Your task to perform on an android device: Search for flights from Mexico city to Zurich Image 0: 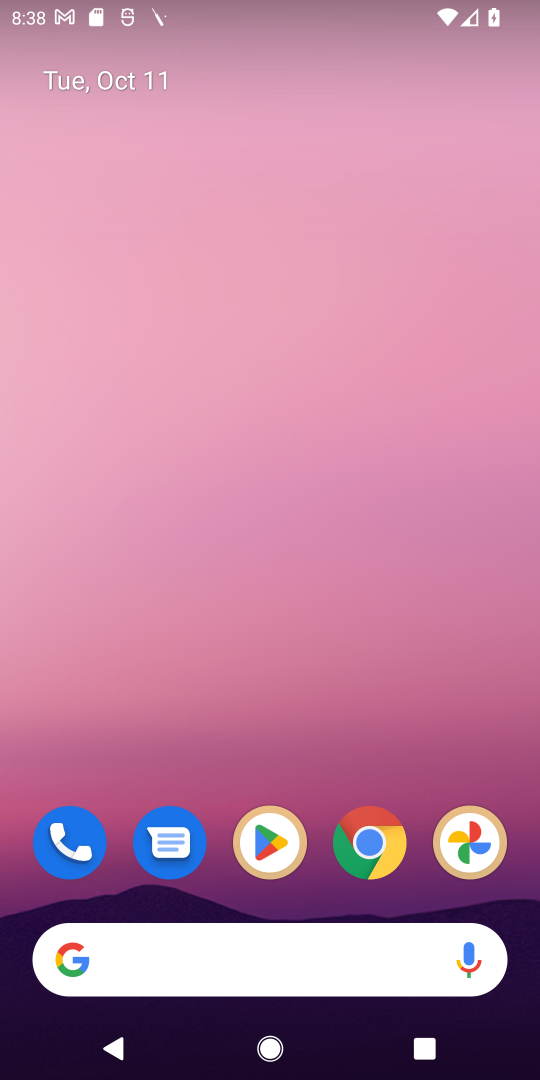
Step 0: click (368, 847)
Your task to perform on an android device: Search for flights from Mexico city to Zurich Image 1: 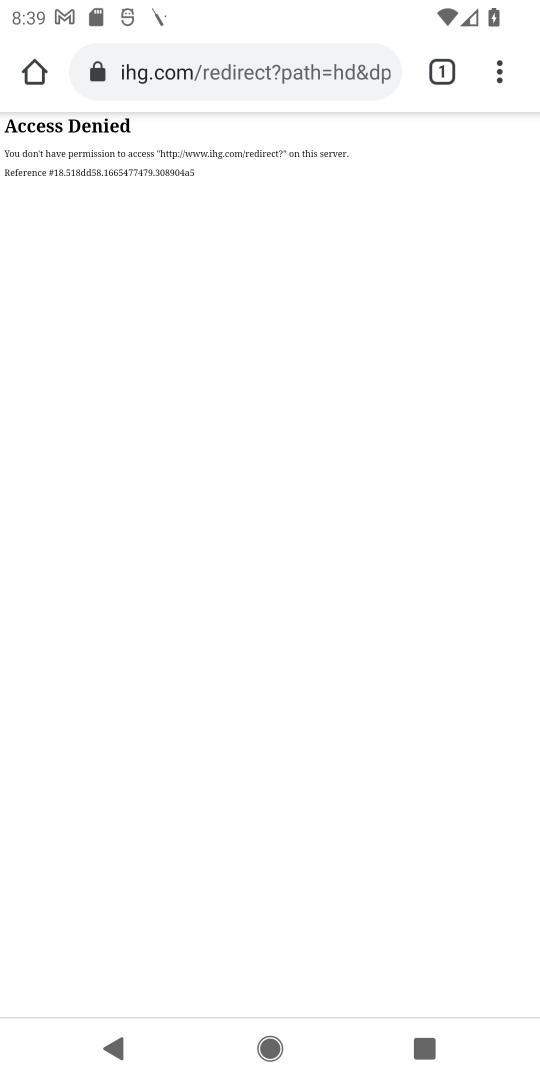
Step 1: press home button
Your task to perform on an android device: Search for flights from Mexico city to Zurich Image 2: 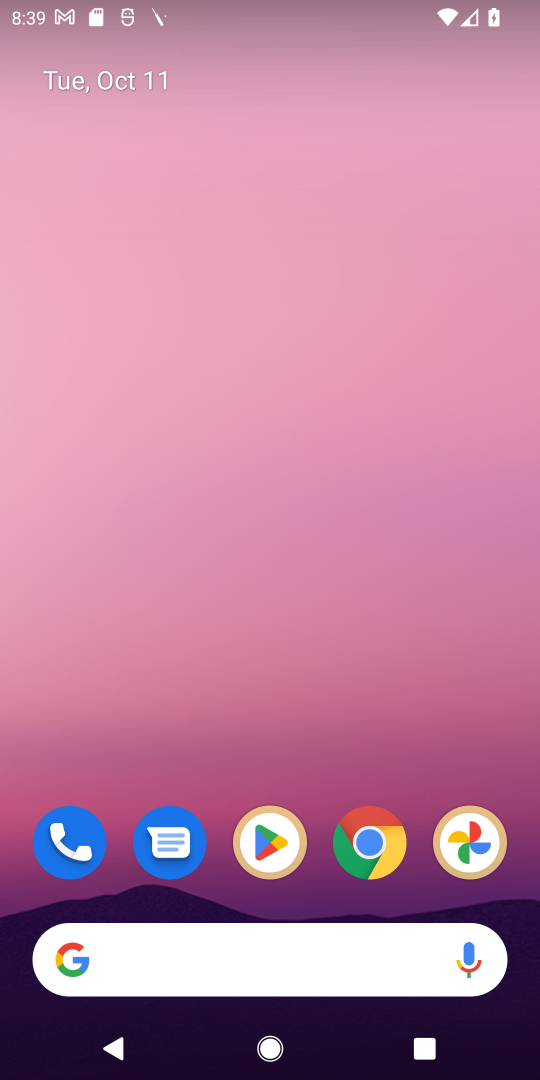
Step 2: click (396, 845)
Your task to perform on an android device: Search for flights from Mexico city to Zurich Image 3: 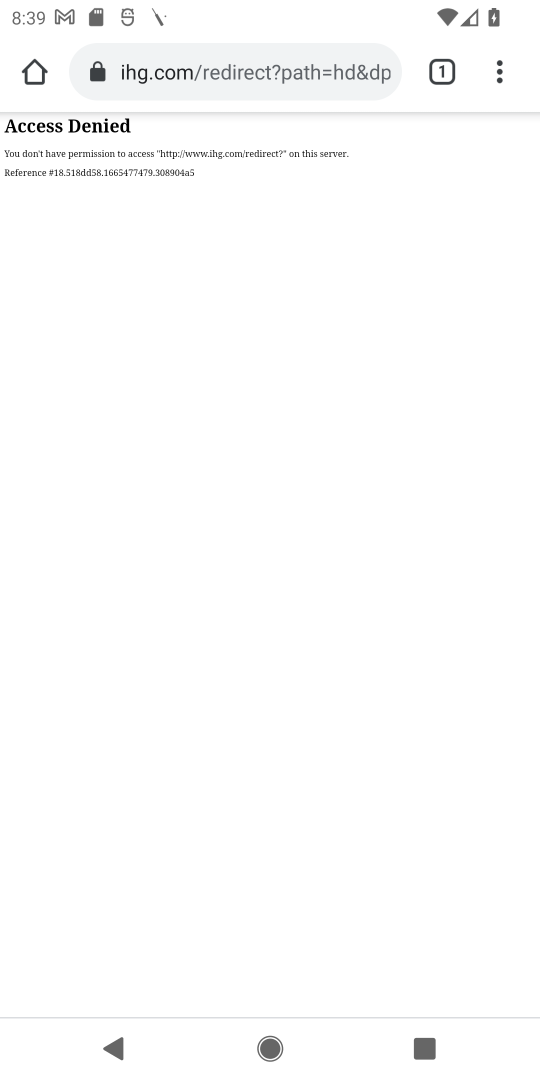
Step 3: click (143, 57)
Your task to perform on an android device: Search for flights from Mexico city to Zurich Image 4: 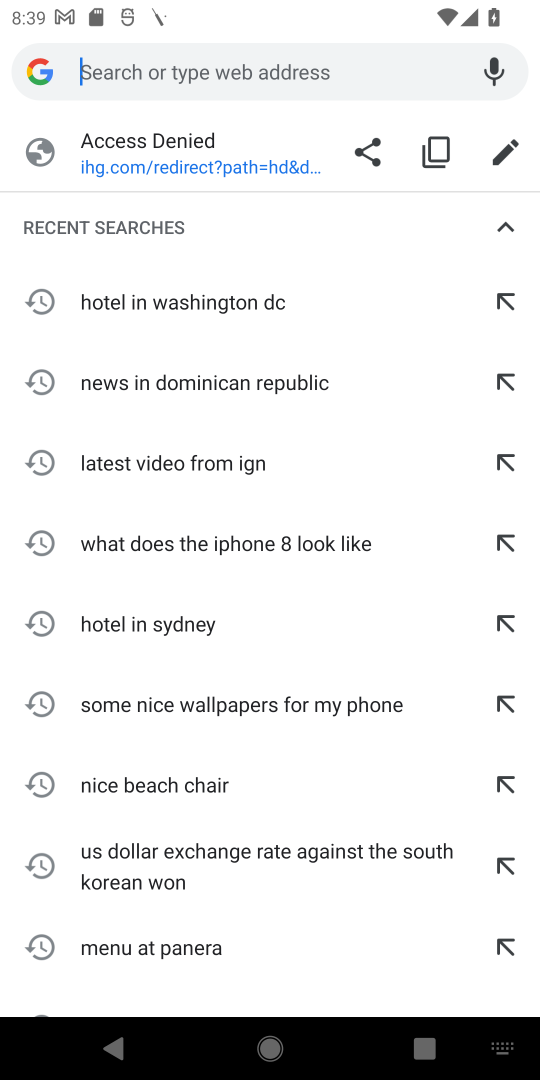
Step 4: type "flight from mexico city to zurich"
Your task to perform on an android device: Search for flights from Mexico city to Zurich Image 5: 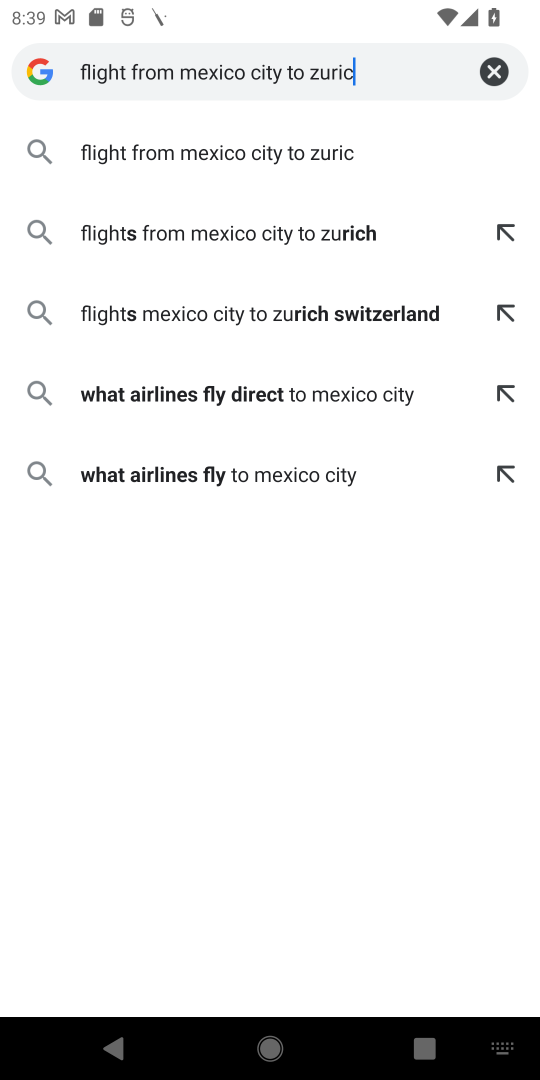
Step 5: type ""
Your task to perform on an android device: Search for flights from Mexico city to Zurich Image 6: 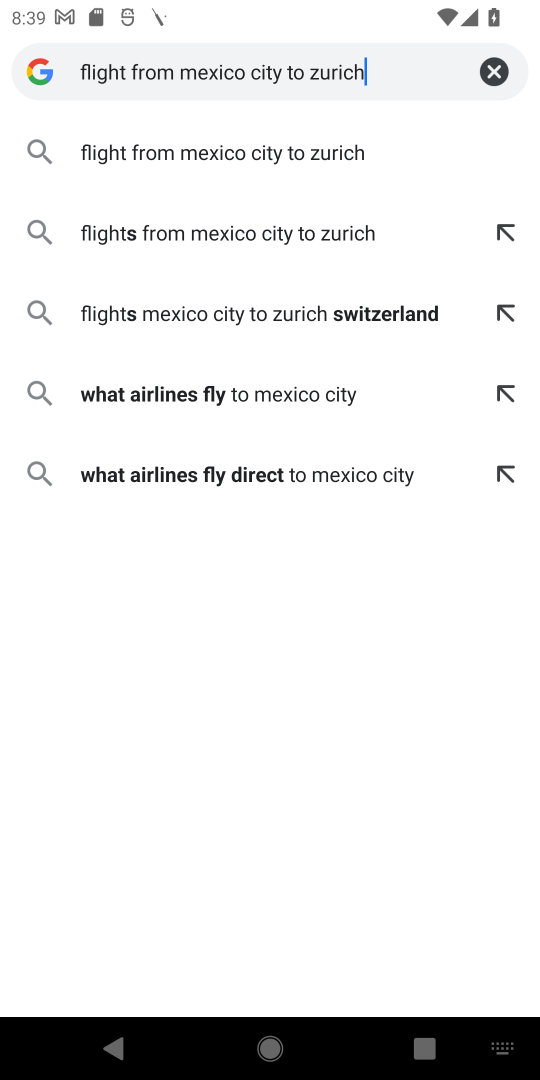
Step 6: click (253, 145)
Your task to perform on an android device: Search for flights from Mexico city to Zurich Image 7: 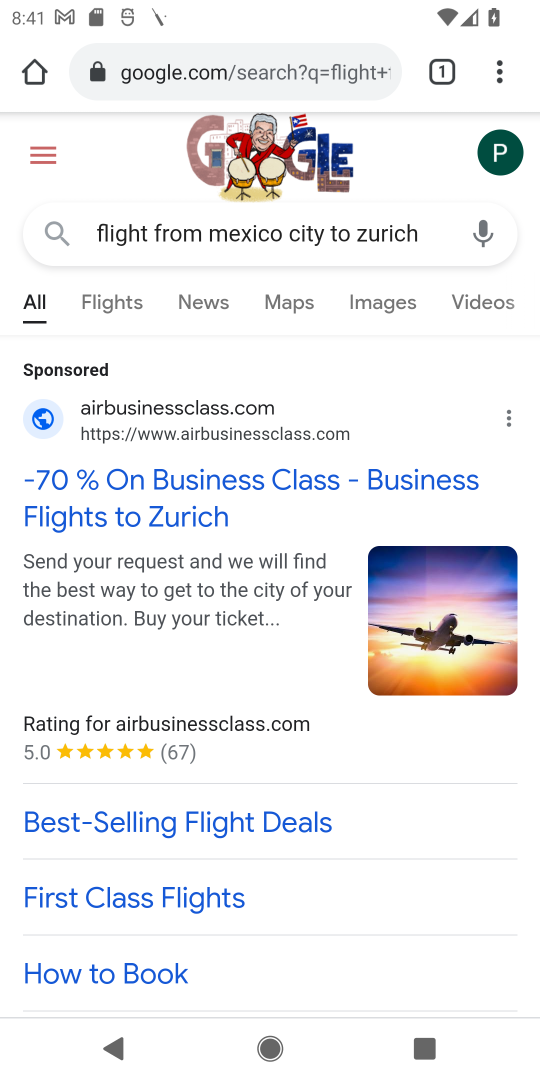
Step 7: click (138, 827)
Your task to perform on an android device: Search for flights from Mexico city to Zurich Image 8: 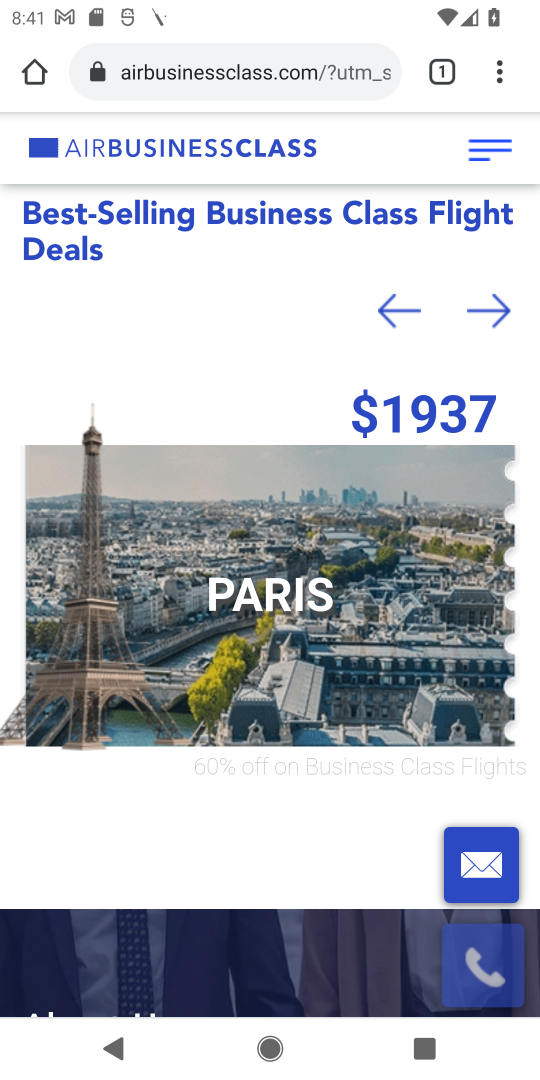
Step 8: drag from (215, 765) to (250, 346)
Your task to perform on an android device: Search for flights from Mexico city to Zurich Image 9: 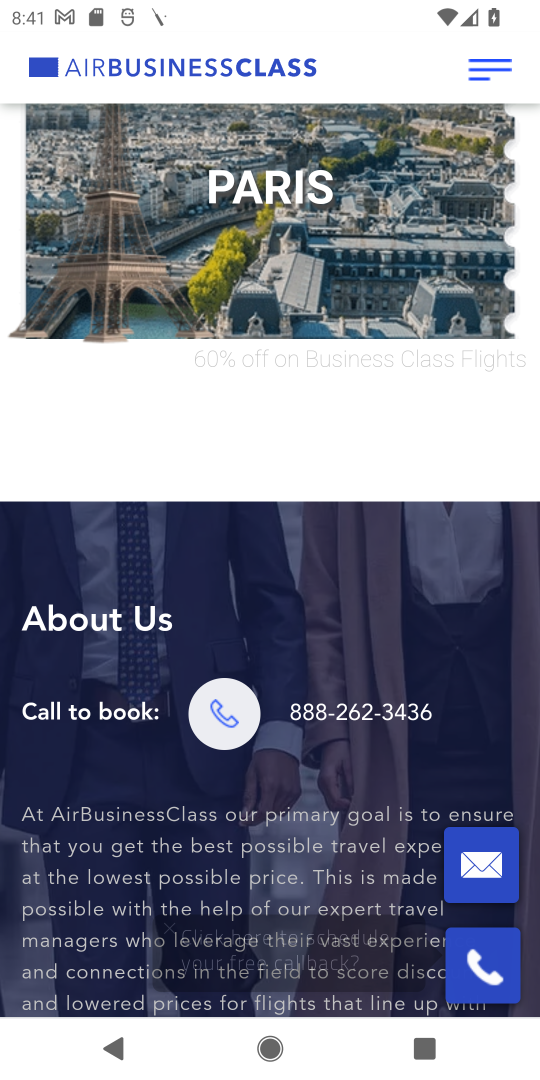
Step 9: drag from (227, 277) to (258, 929)
Your task to perform on an android device: Search for flights from Mexico city to Zurich Image 10: 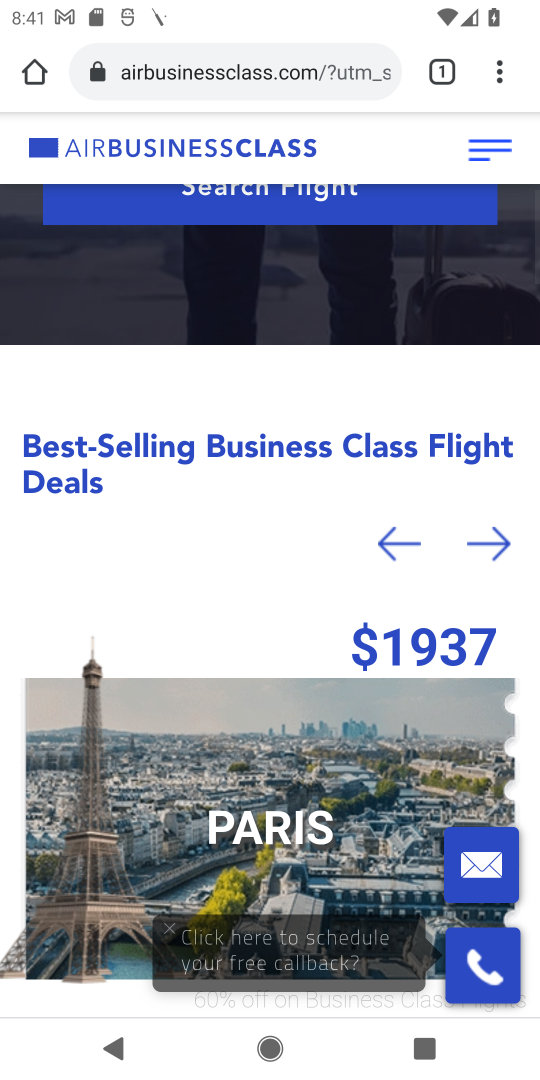
Step 10: drag from (275, 546) to (265, 664)
Your task to perform on an android device: Search for flights from Mexico city to Zurich Image 11: 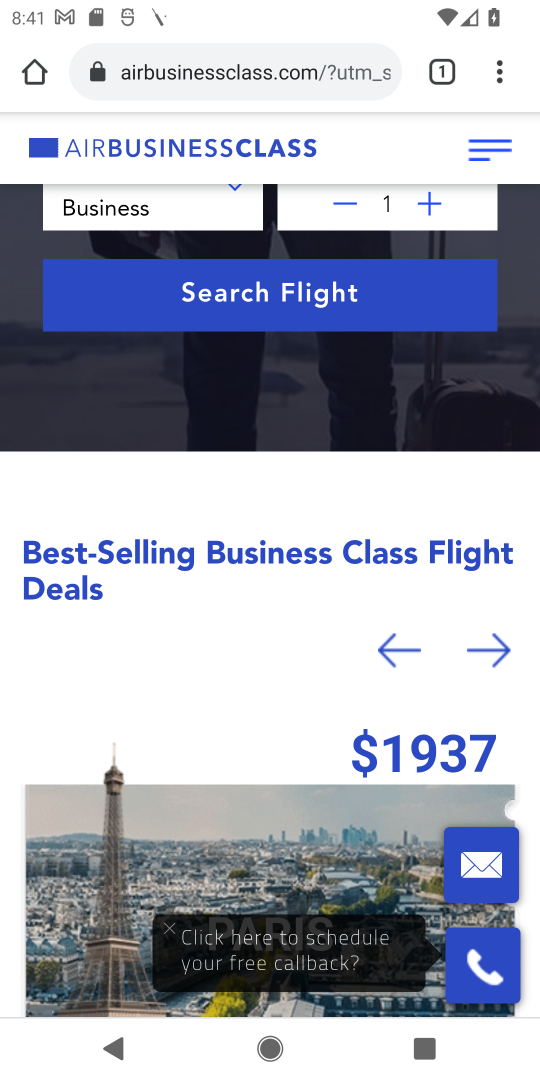
Step 11: drag from (290, 531) to (250, 952)
Your task to perform on an android device: Search for flights from Mexico city to Zurich Image 12: 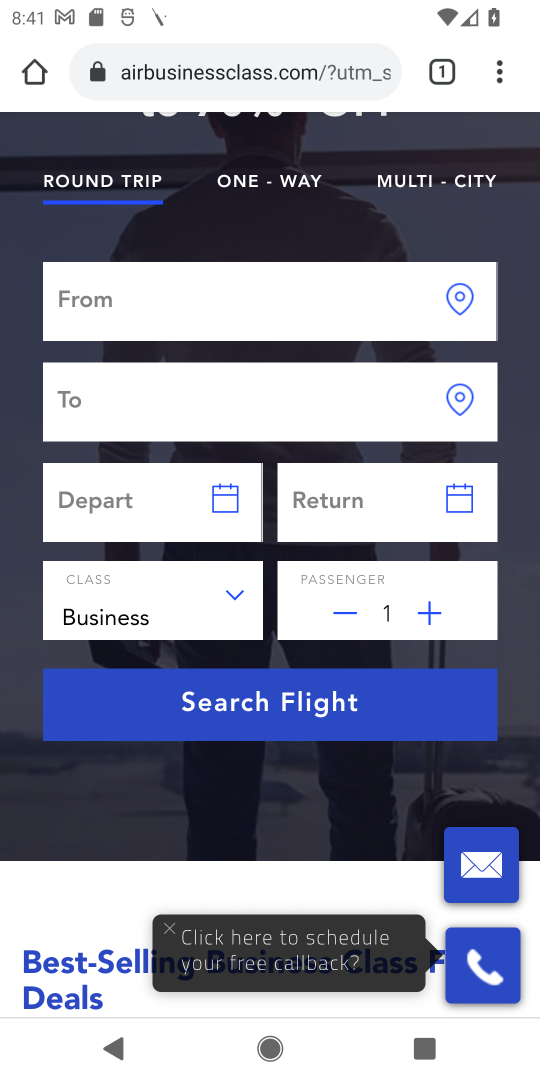
Step 12: click (122, 294)
Your task to perform on an android device: Search for flights from Mexico city to Zurich Image 13: 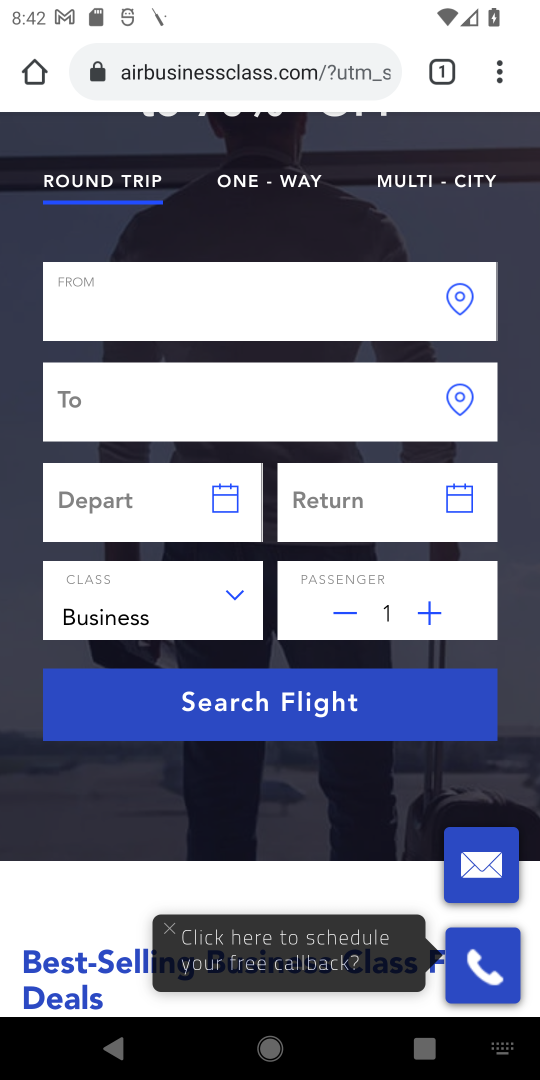
Step 13: type "mexico"
Your task to perform on an android device: Search for flights from Mexico city to Zurich Image 14: 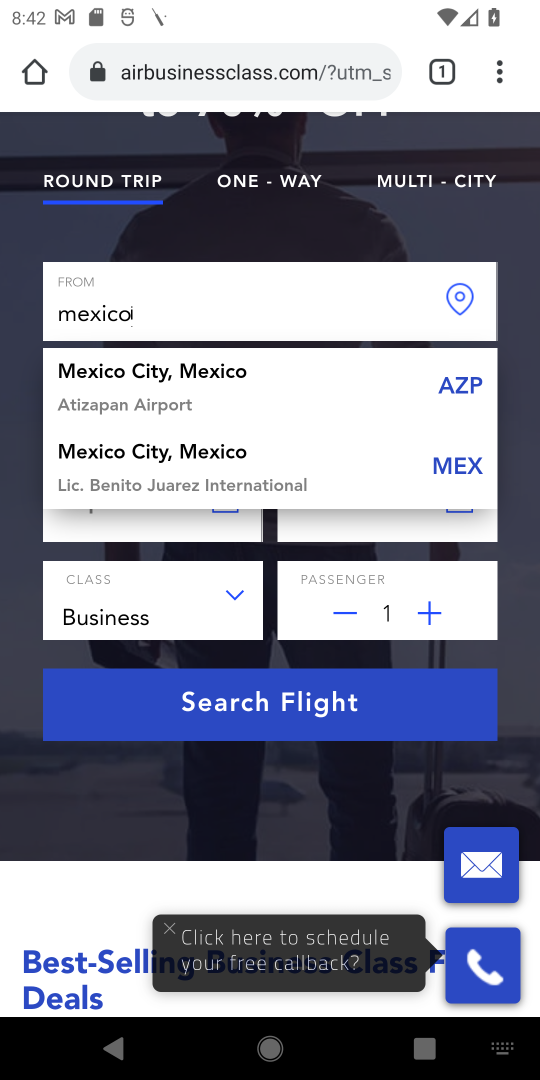
Step 14: click (153, 373)
Your task to perform on an android device: Search for flights from Mexico city to Zurich Image 15: 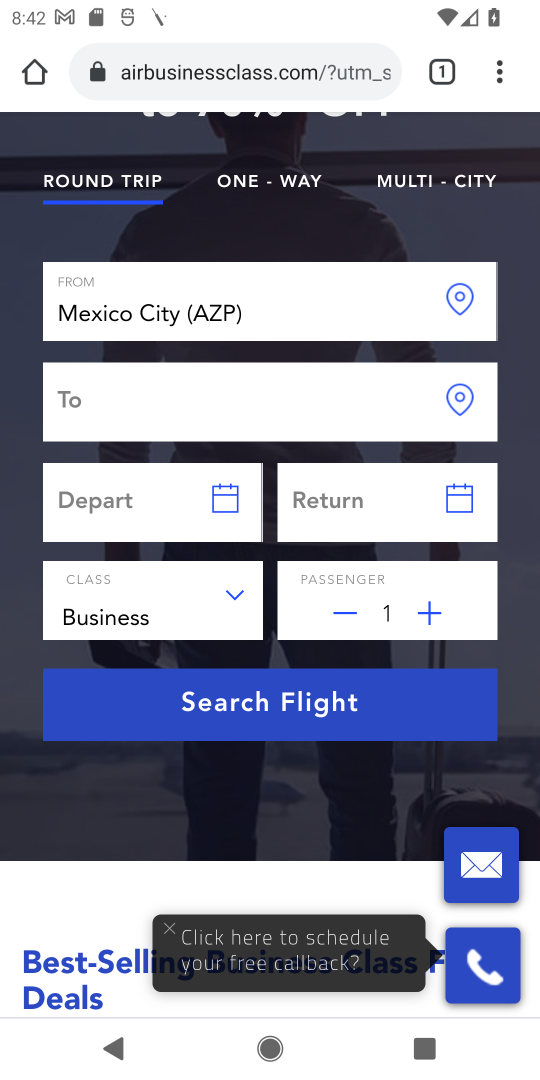
Step 15: click (152, 371)
Your task to perform on an android device: Search for flights from Mexico city to Zurich Image 16: 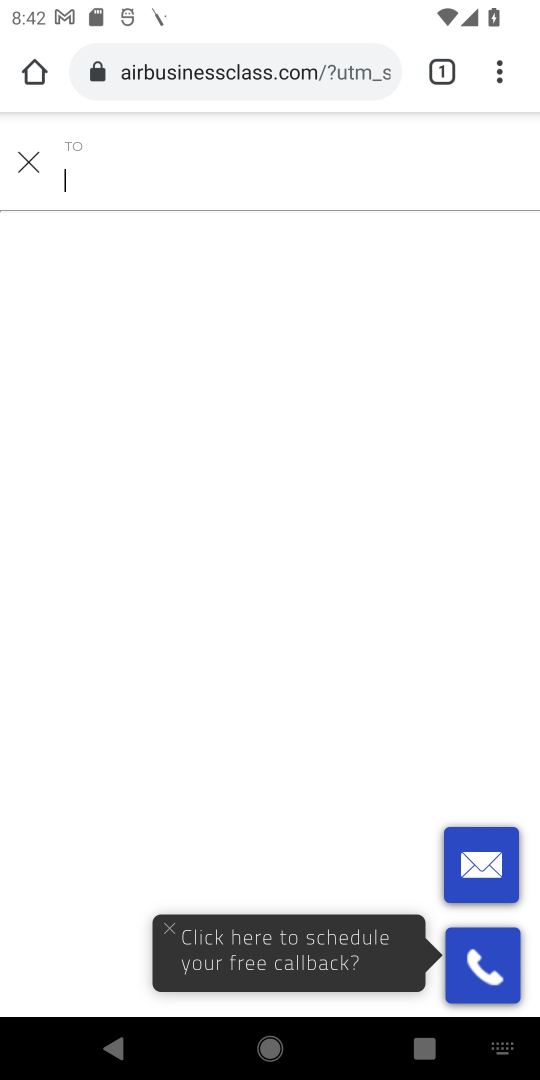
Step 16: type "zurich"
Your task to perform on an android device: Search for flights from Mexico city to Zurich Image 17: 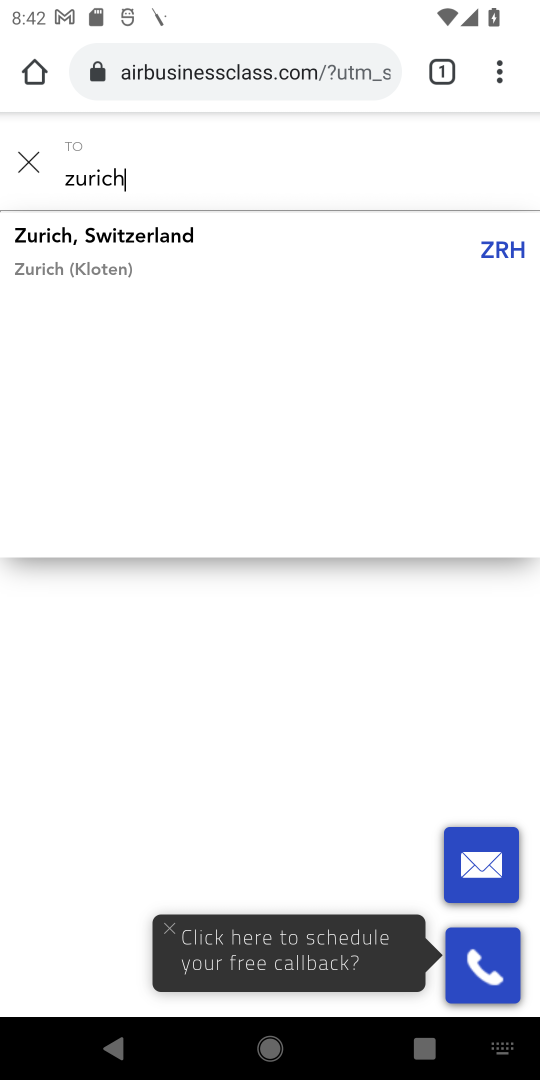
Step 17: click (105, 235)
Your task to perform on an android device: Search for flights from Mexico city to Zurich Image 18: 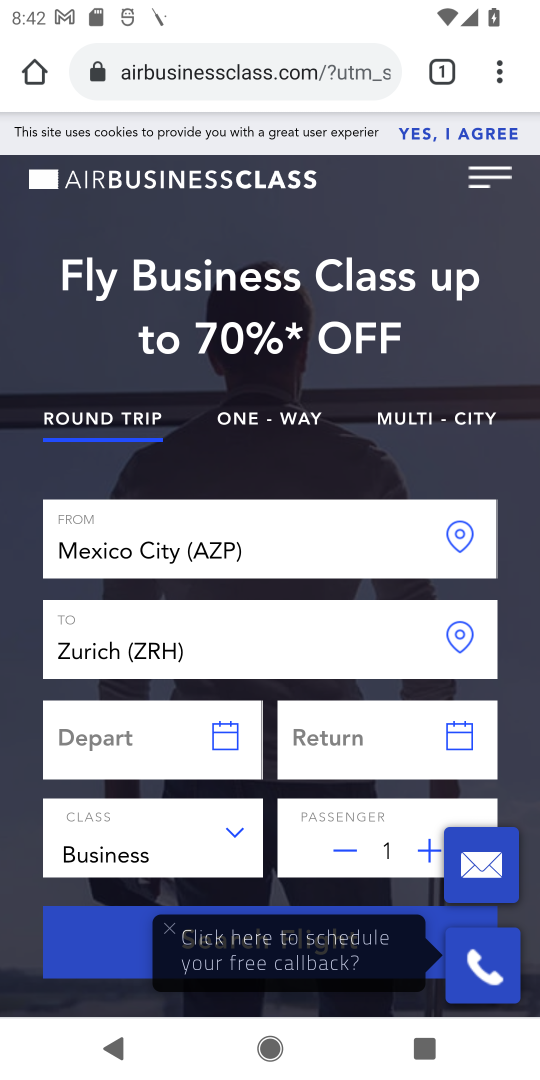
Step 18: click (234, 739)
Your task to perform on an android device: Search for flights from Mexico city to Zurich Image 19: 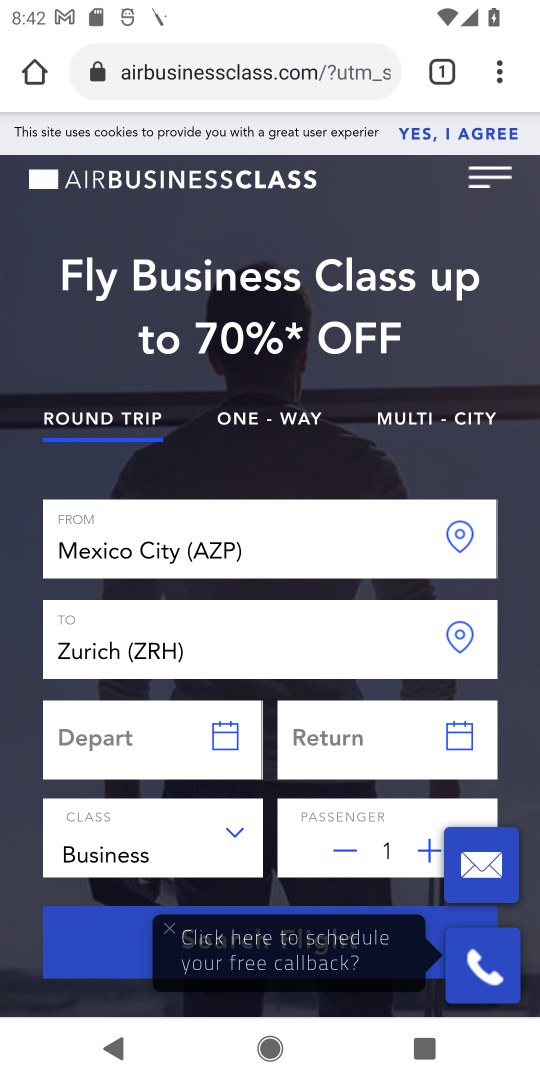
Step 19: click (229, 745)
Your task to perform on an android device: Search for flights from Mexico city to Zurich Image 20: 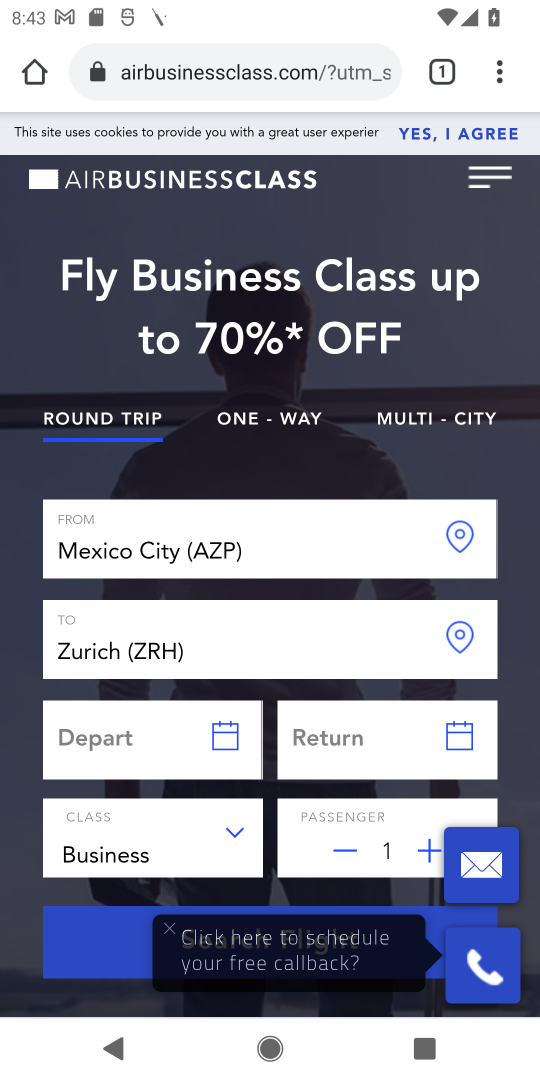
Step 20: click (228, 734)
Your task to perform on an android device: Search for flights from Mexico city to Zurich Image 21: 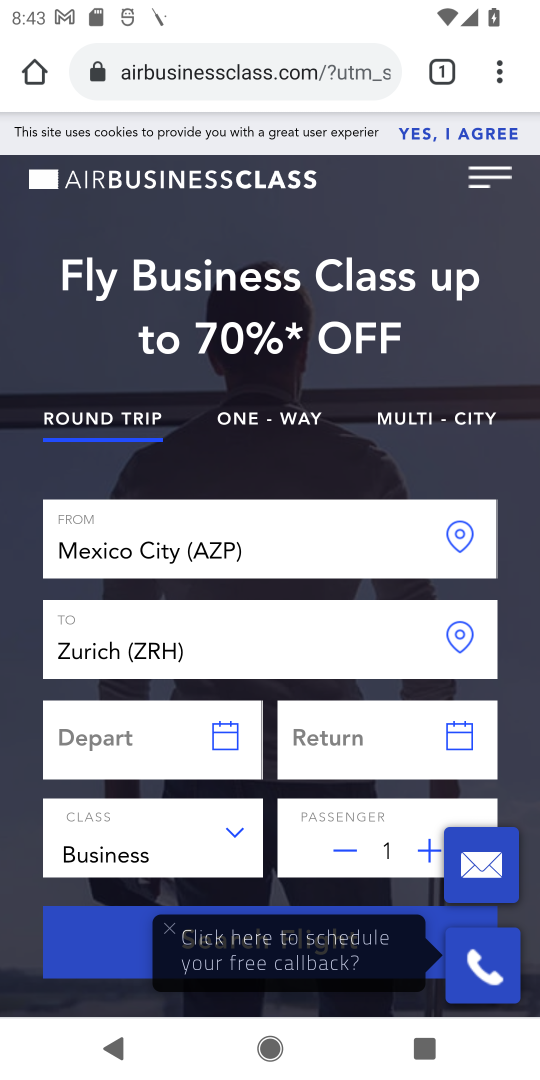
Step 21: click (222, 736)
Your task to perform on an android device: Search for flights from Mexico city to Zurich Image 22: 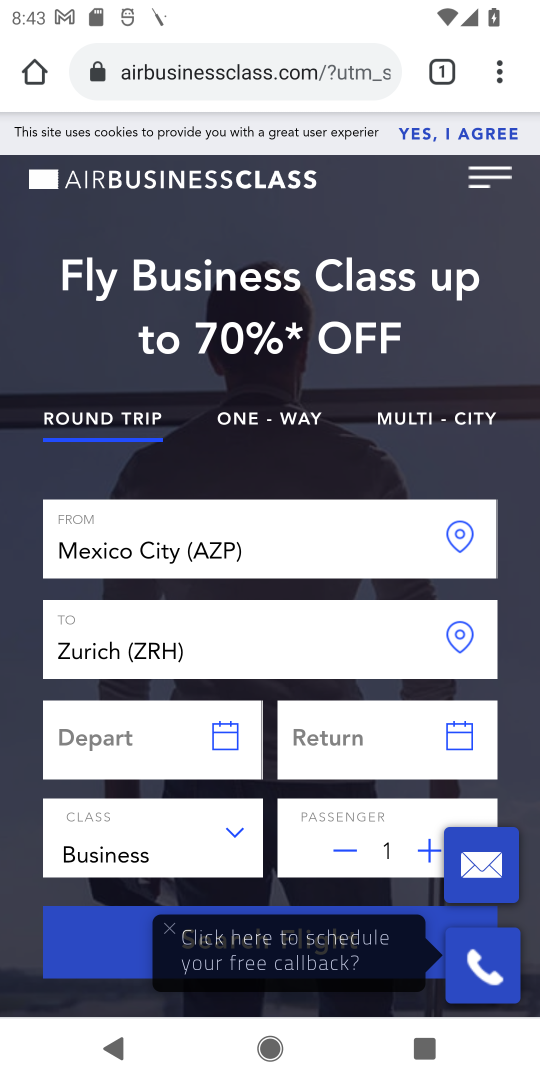
Step 22: click (229, 737)
Your task to perform on an android device: Search for flights from Mexico city to Zurich Image 23: 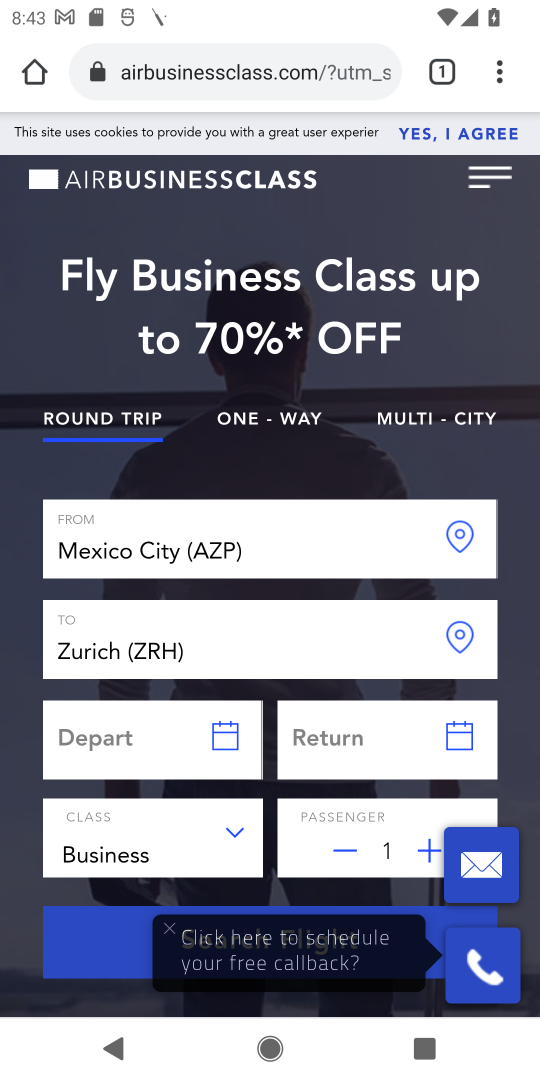
Step 23: click (102, 735)
Your task to perform on an android device: Search for flights from Mexico city to Zurich Image 24: 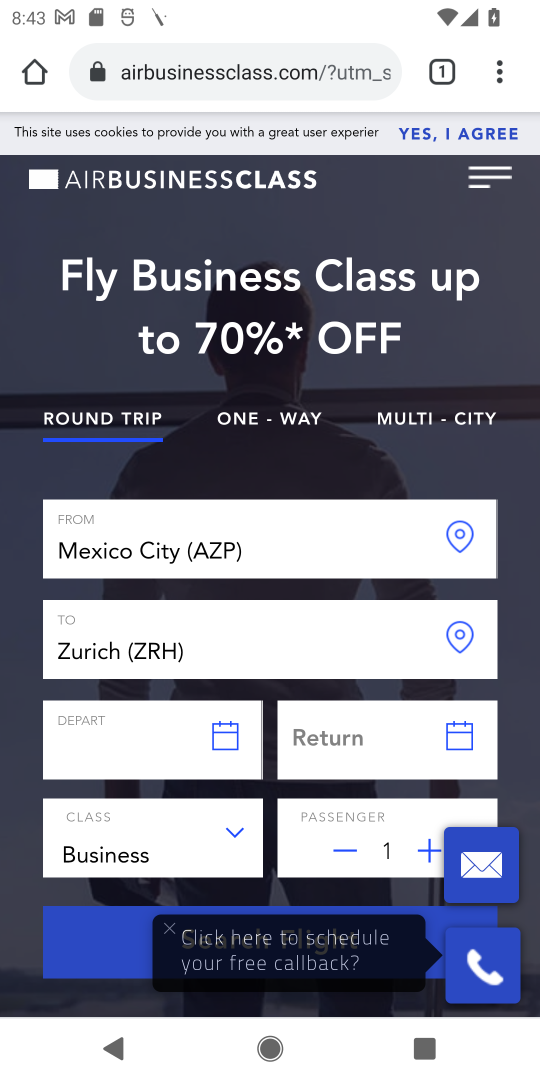
Step 24: click (102, 735)
Your task to perform on an android device: Search for flights from Mexico city to Zurich Image 25: 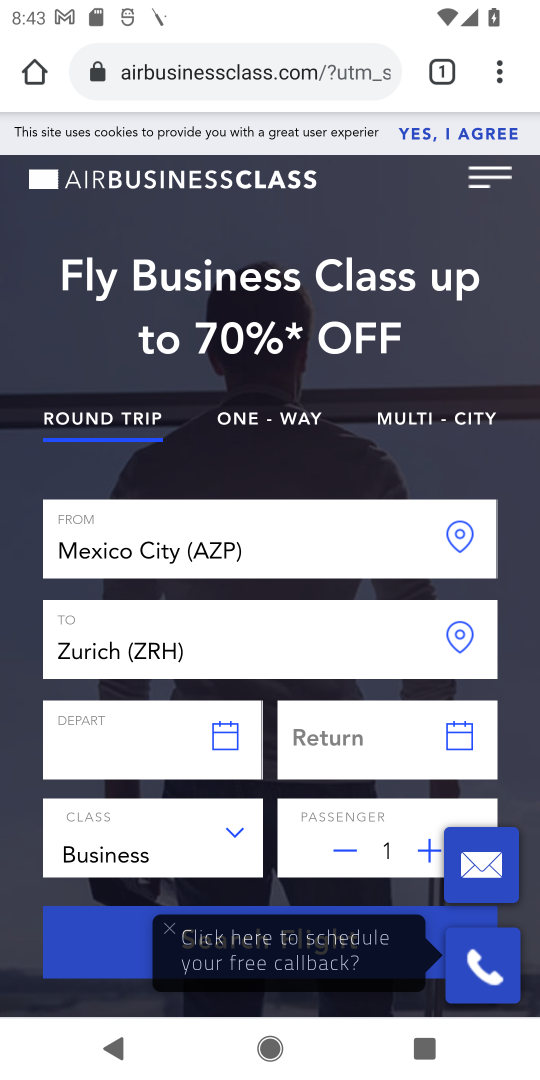
Step 25: click (228, 746)
Your task to perform on an android device: Search for flights from Mexico city to Zurich Image 26: 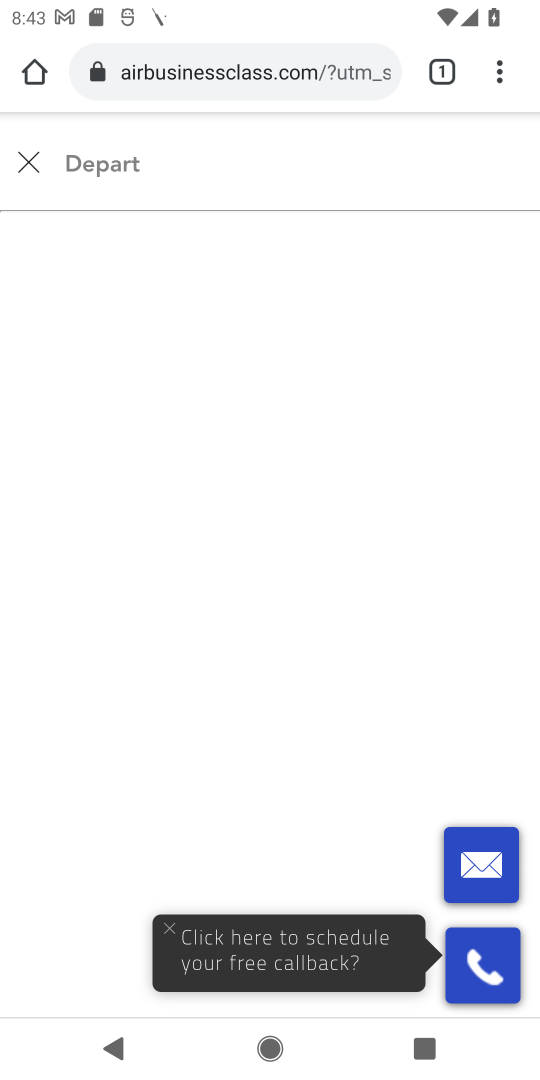
Step 26: click (317, 737)
Your task to perform on an android device: Search for flights from Mexico city to Zurich Image 27: 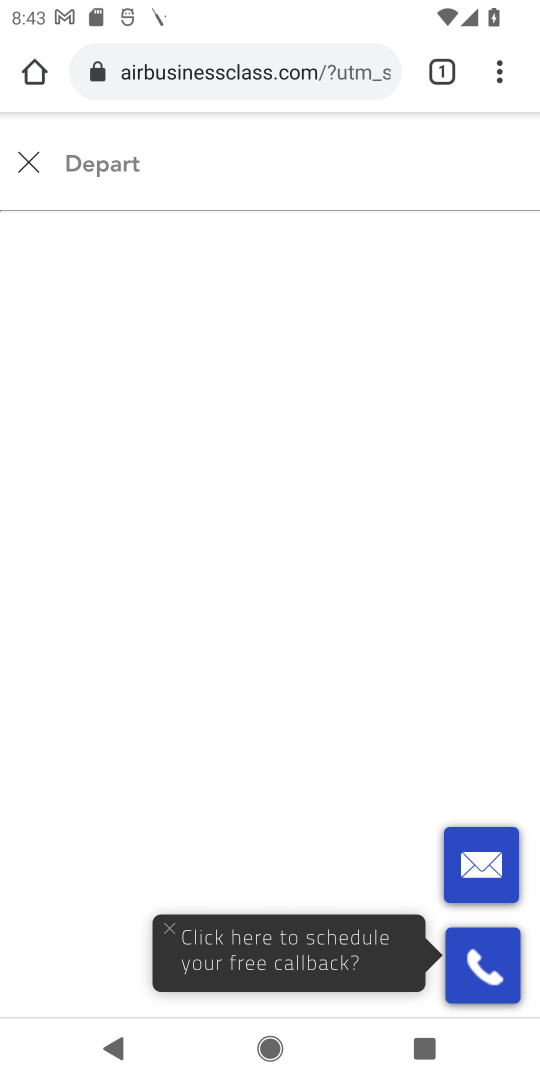
Step 27: click (181, 344)
Your task to perform on an android device: Search for flights from Mexico city to Zurich Image 28: 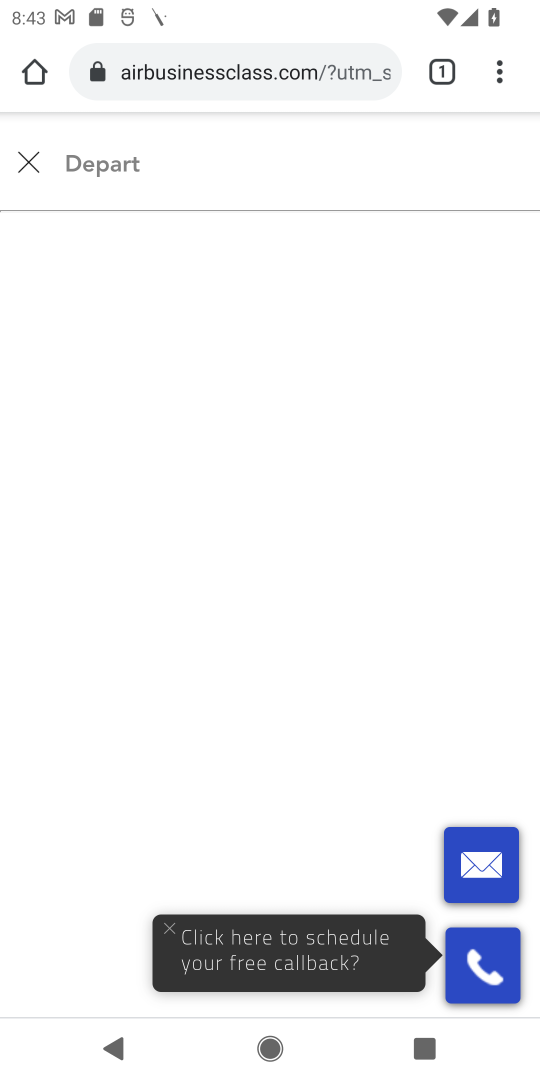
Step 28: click (31, 166)
Your task to perform on an android device: Search for flights from Mexico city to Zurich Image 29: 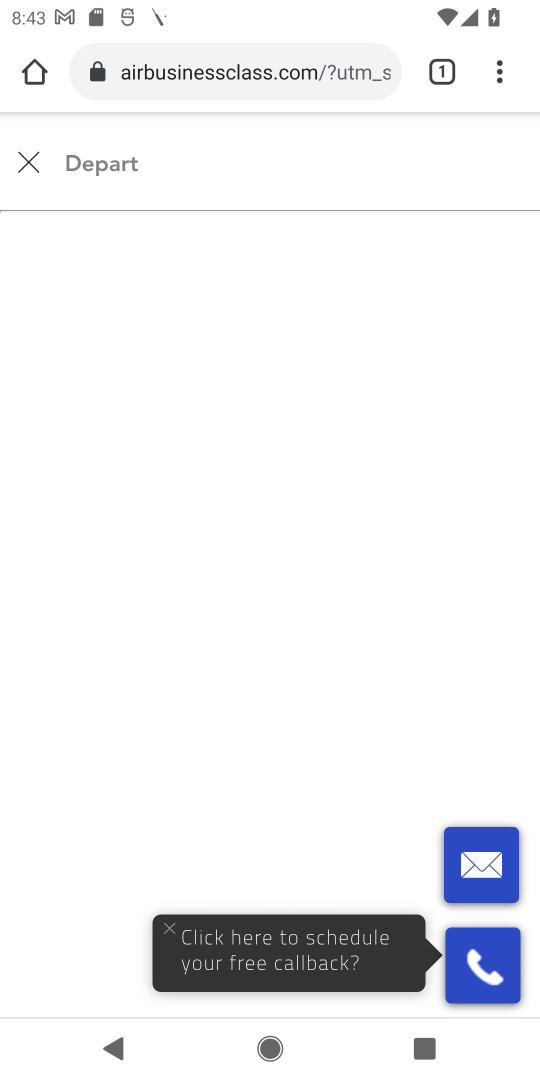
Step 29: click (24, 161)
Your task to perform on an android device: Search for flights from Mexico city to Zurich Image 30: 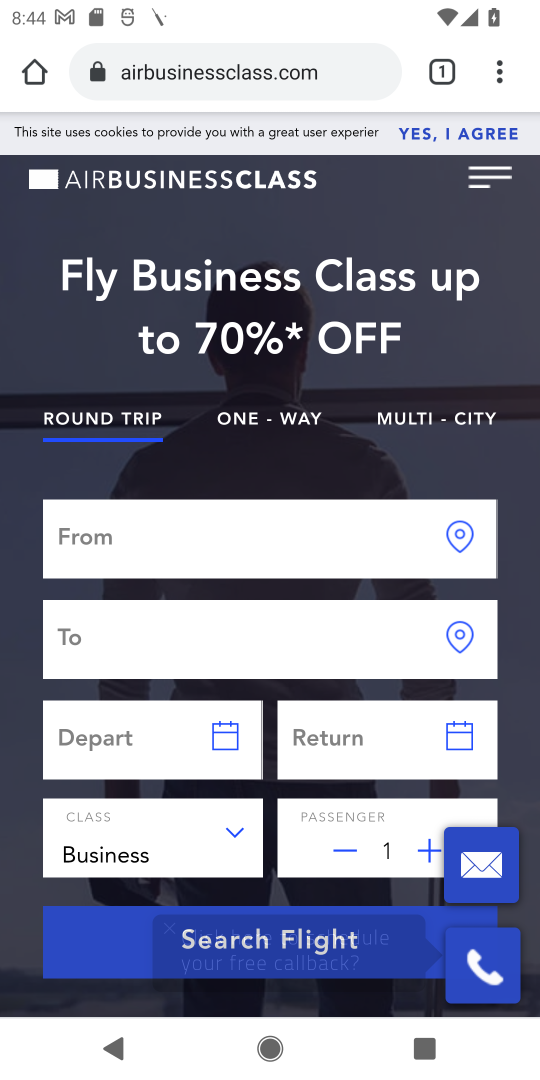
Step 30: task complete